Your task to perform on an android device: Show me the alarms in the clock app Image 0: 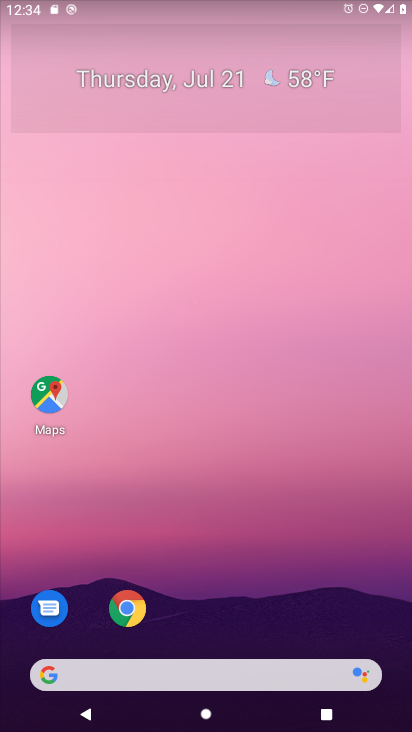
Step 0: press home button
Your task to perform on an android device: Show me the alarms in the clock app Image 1: 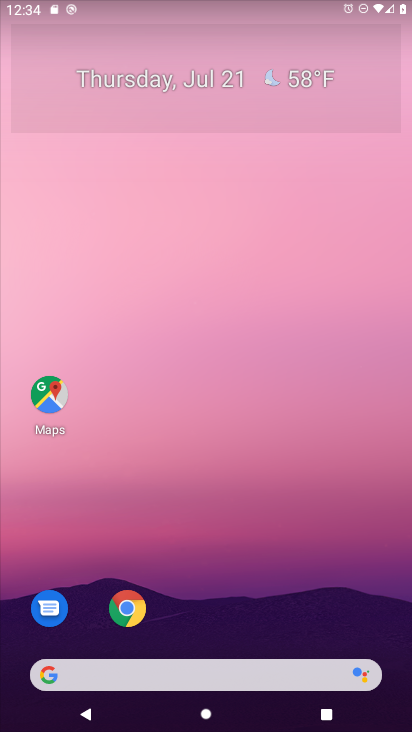
Step 1: drag from (230, 627) to (181, 114)
Your task to perform on an android device: Show me the alarms in the clock app Image 2: 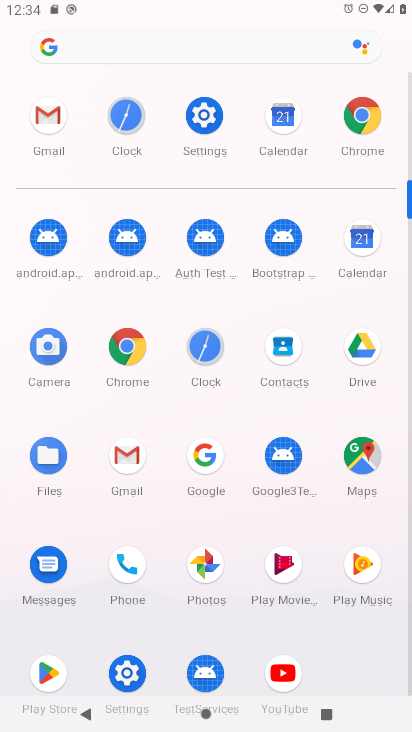
Step 2: click (131, 122)
Your task to perform on an android device: Show me the alarms in the clock app Image 3: 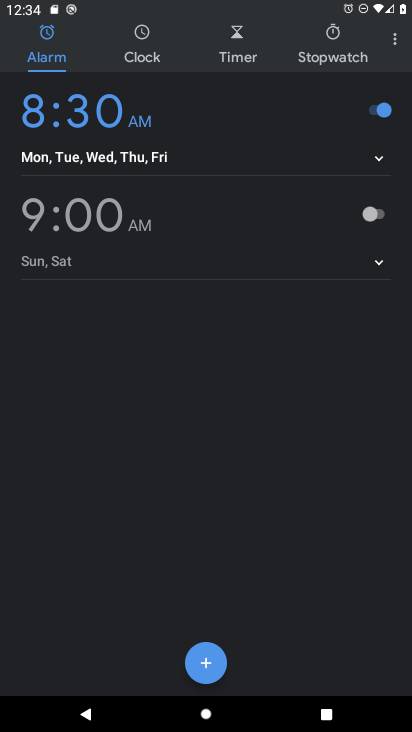
Step 3: click (48, 47)
Your task to perform on an android device: Show me the alarms in the clock app Image 4: 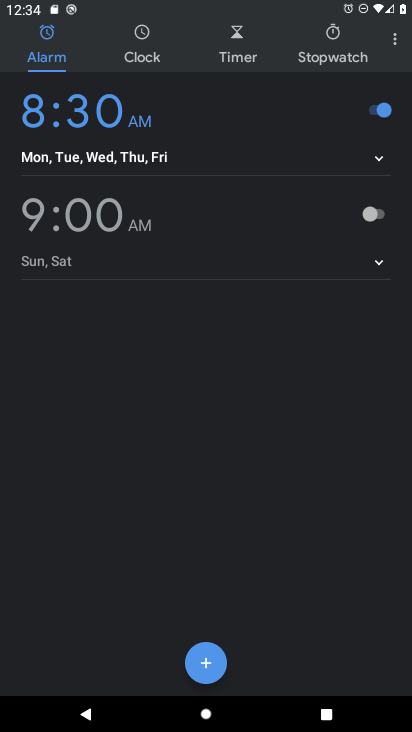
Step 4: task complete